Your task to perform on an android device: Do I have any events today? Image 0: 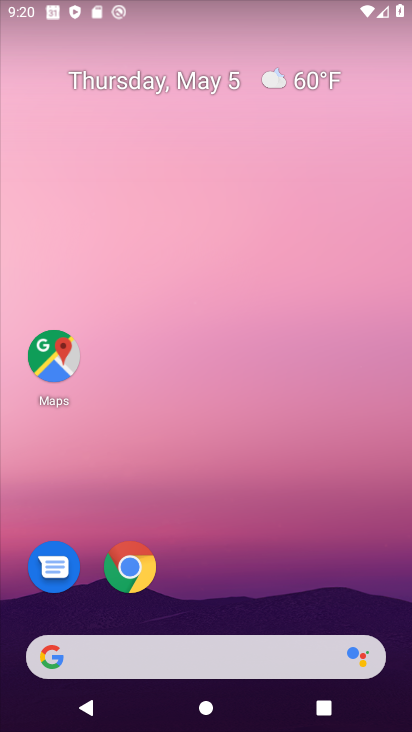
Step 0: drag from (206, 728) to (205, 153)
Your task to perform on an android device: Do I have any events today? Image 1: 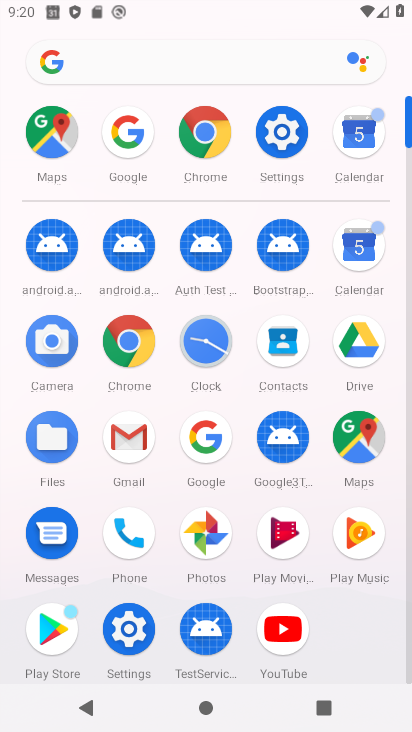
Step 1: click (358, 241)
Your task to perform on an android device: Do I have any events today? Image 2: 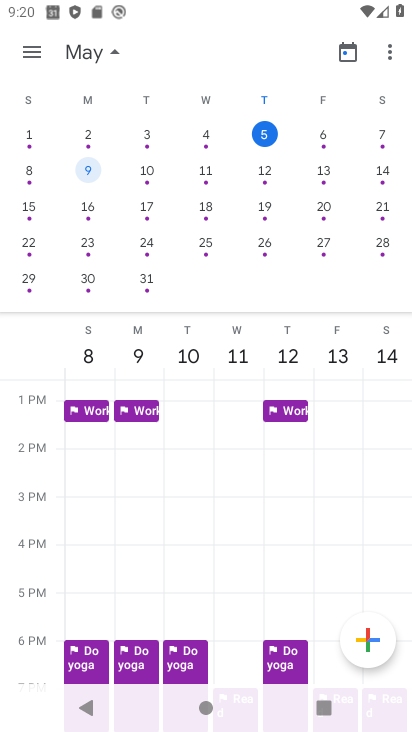
Step 2: click (267, 134)
Your task to perform on an android device: Do I have any events today? Image 3: 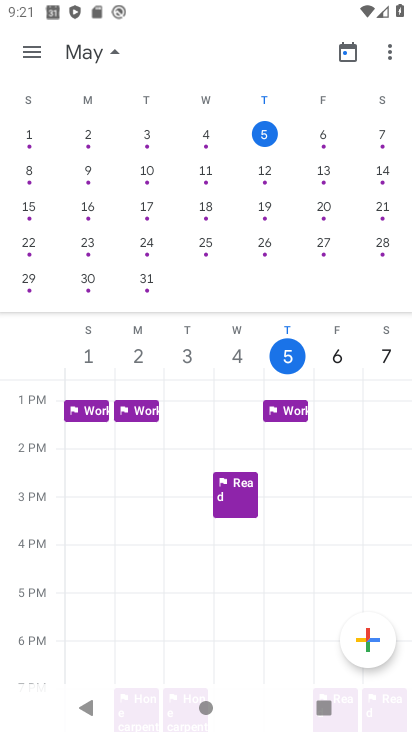
Step 3: task complete